Your task to perform on an android device: turn on the 12-hour format for clock Image 0: 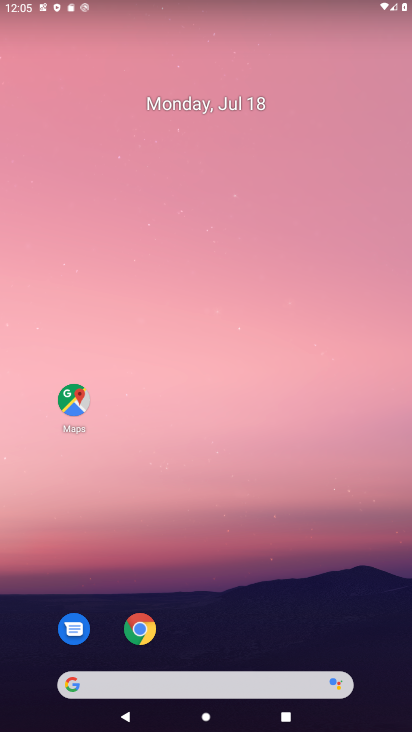
Step 0: press home button
Your task to perform on an android device: turn on the 12-hour format for clock Image 1: 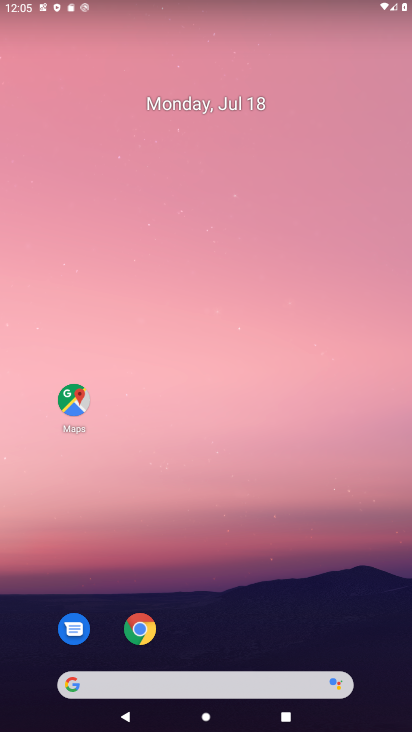
Step 1: drag from (208, 646) to (198, 38)
Your task to perform on an android device: turn on the 12-hour format for clock Image 2: 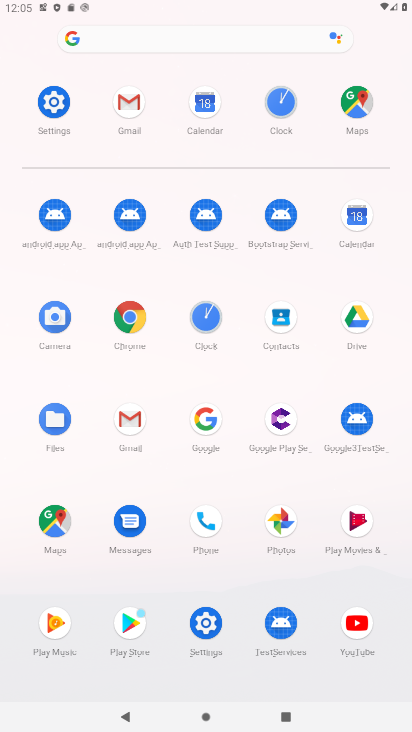
Step 2: click (203, 310)
Your task to perform on an android device: turn on the 12-hour format for clock Image 3: 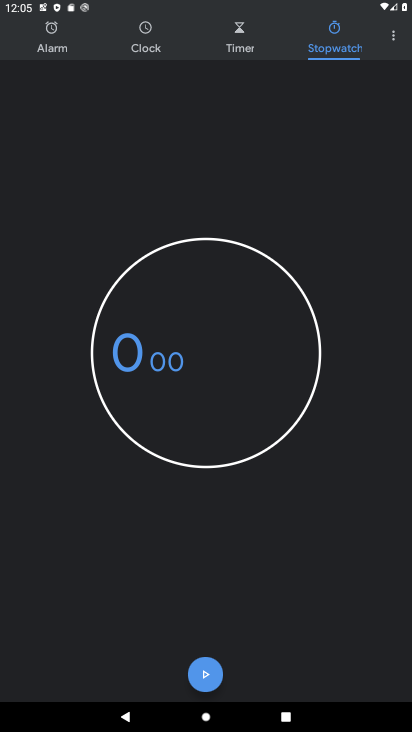
Step 3: click (392, 29)
Your task to perform on an android device: turn on the 12-hour format for clock Image 4: 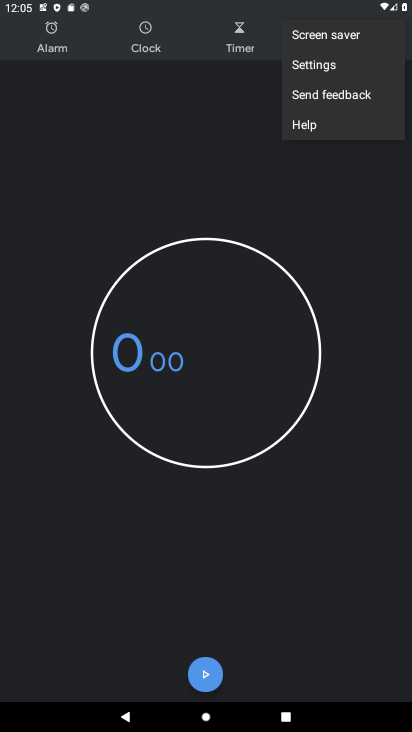
Step 4: click (346, 69)
Your task to perform on an android device: turn on the 12-hour format for clock Image 5: 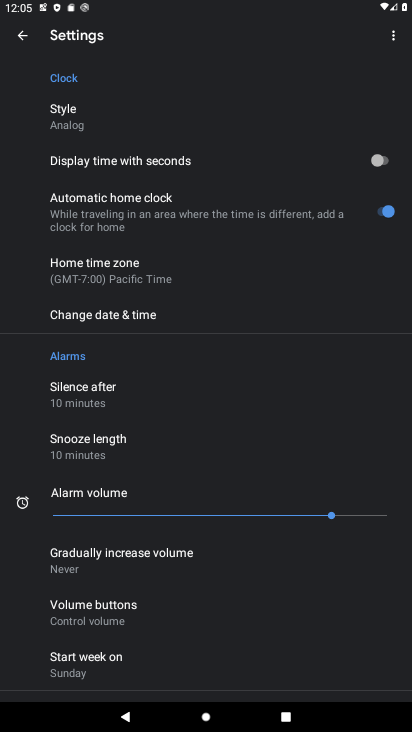
Step 5: click (157, 316)
Your task to perform on an android device: turn on the 12-hour format for clock Image 6: 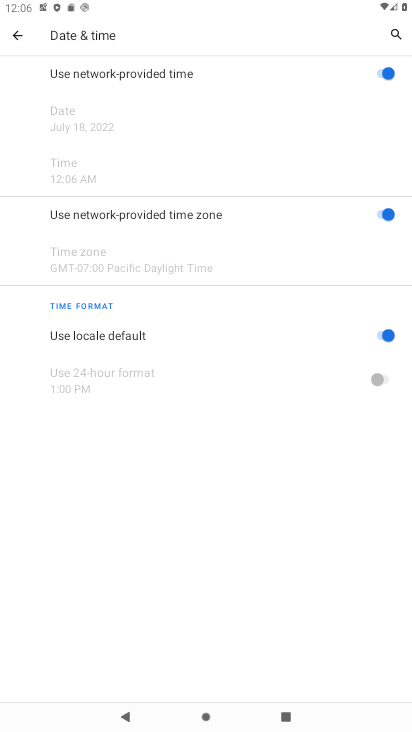
Step 6: task complete